Your task to perform on an android device: What's on my calendar today? Image 0: 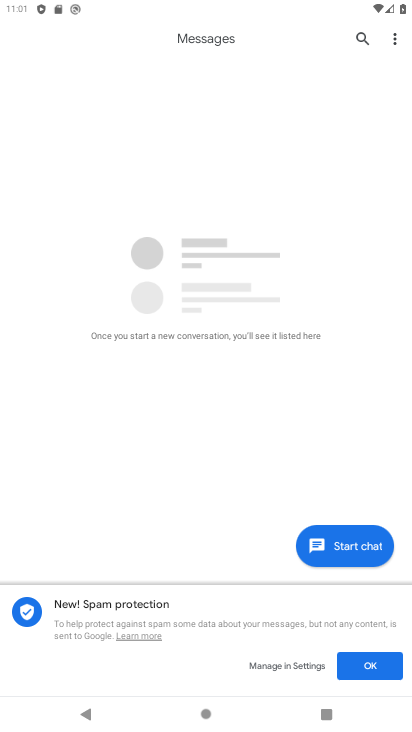
Step 0: press home button
Your task to perform on an android device: What's on my calendar today? Image 1: 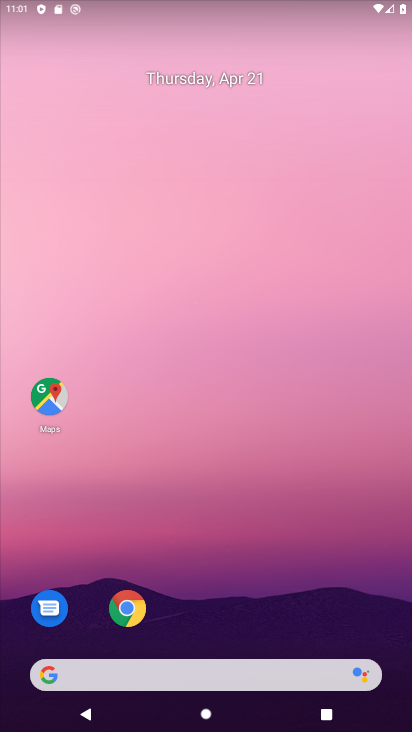
Step 1: drag from (154, 635) to (218, 203)
Your task to perform on an android device: What's on my calendar today? Image 2: 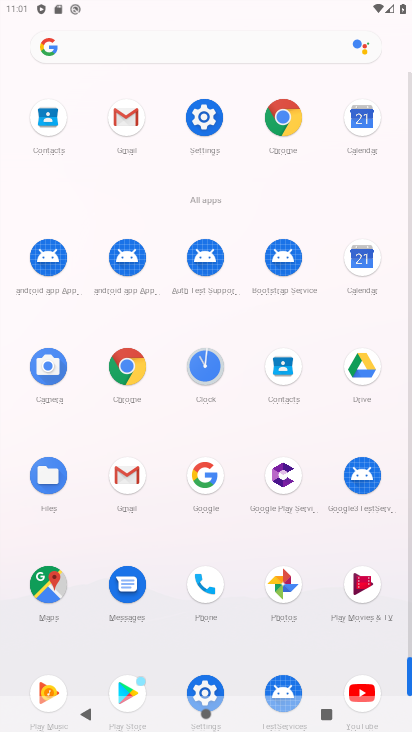
Step 2: click (363, 261)
Your task to perform on an android device: What's on my calendar today? Image 3: 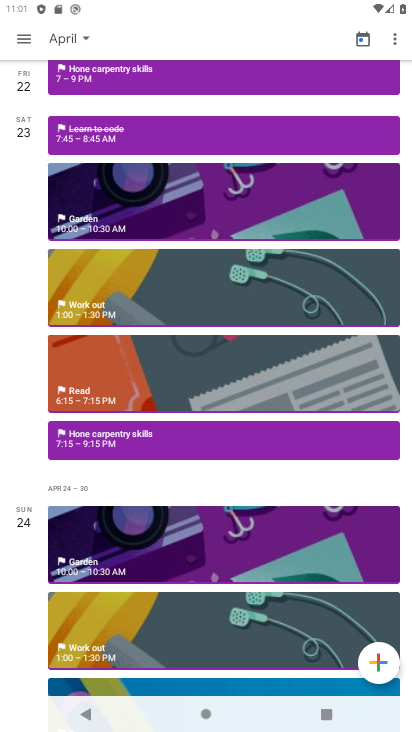
Step 3: click (73, 40)
Your task to perform on an android device: What's on my calendar today? Image 4: 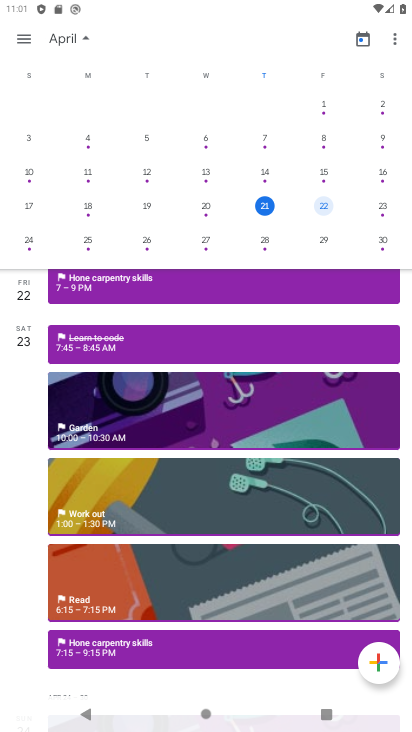
Step 4: click (271, 205)
Your task to perform on an android device: What's on my calendar today? Image 5: 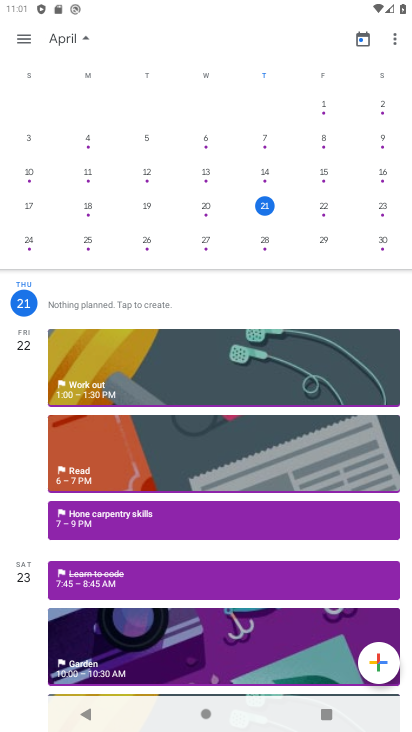
Step 5: task complete